Your task to perform on an android device: change notification settings in the gmail app Image 0: 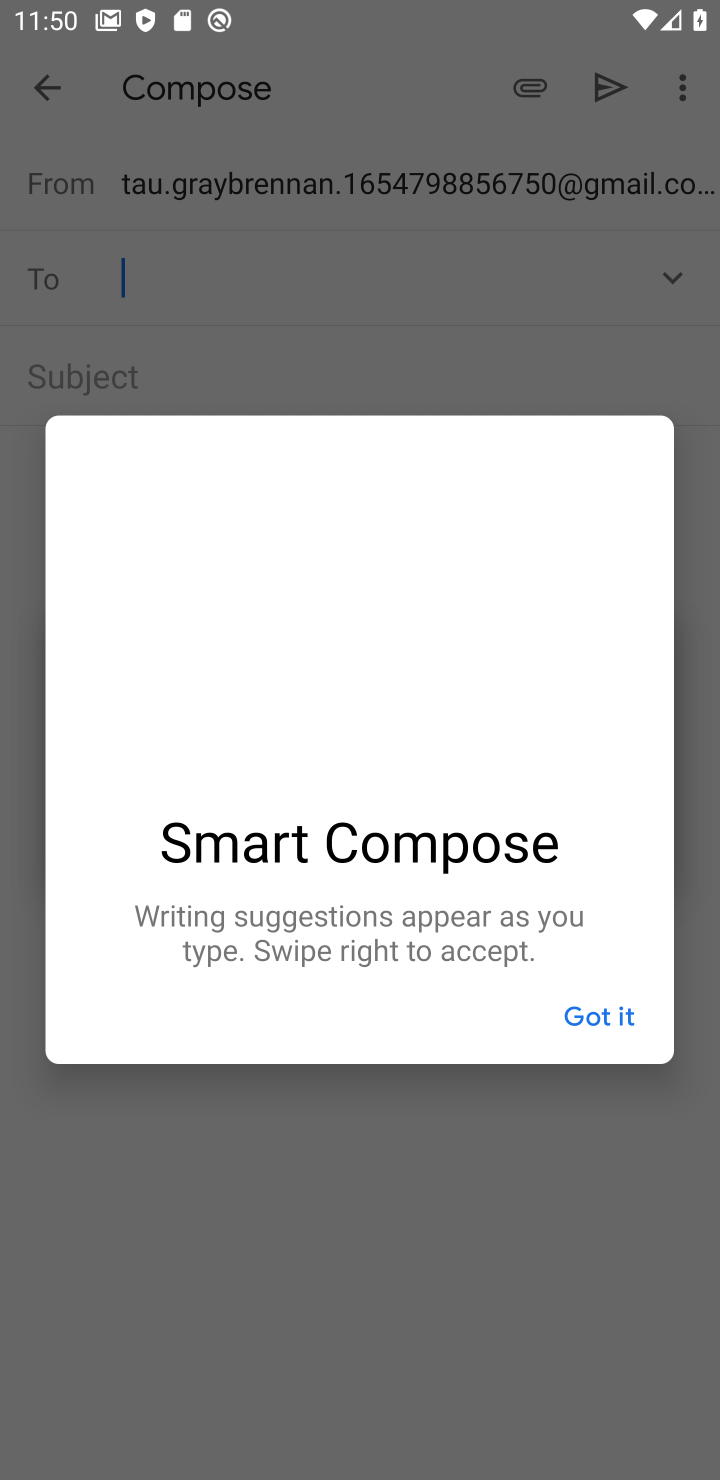
Step 0: press home button
Your task to perform on an android device: change notification settings in the gmail app Image 1: 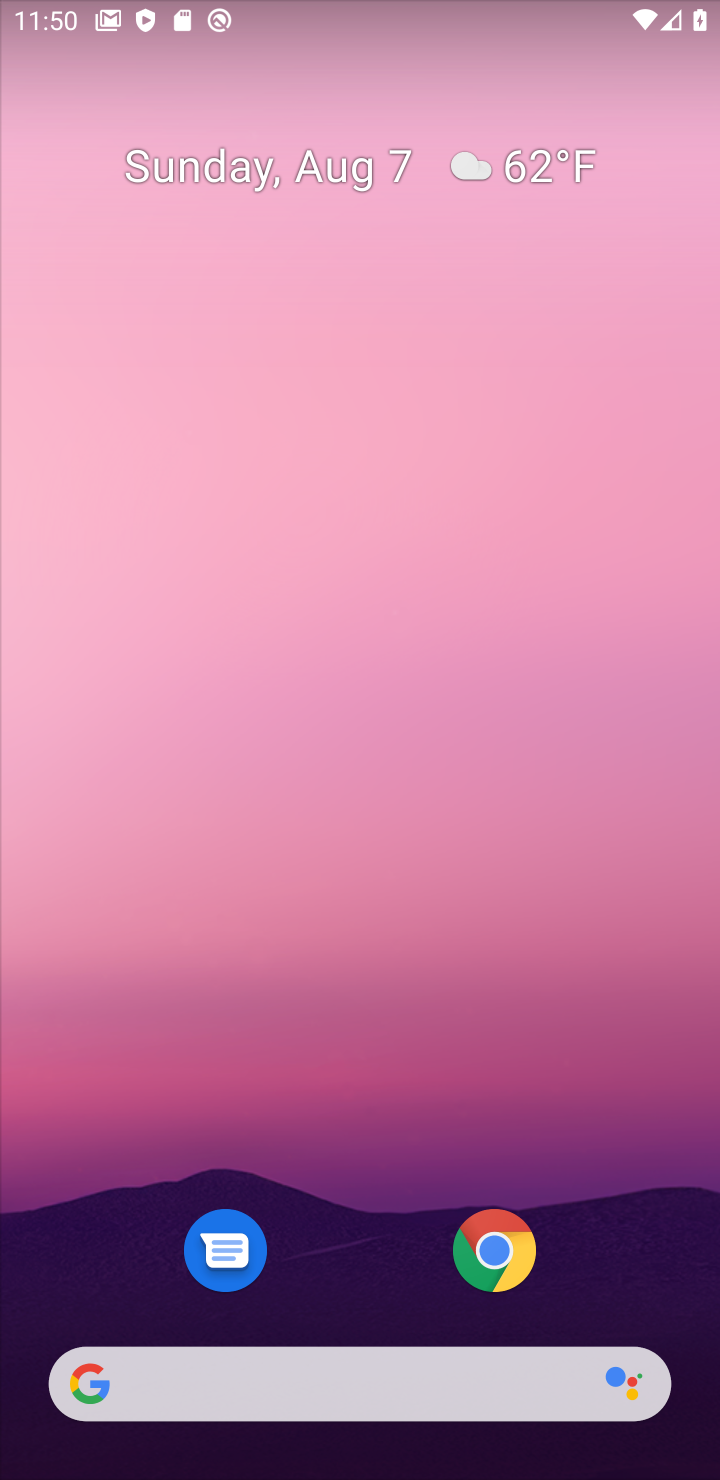
Step 1: drag from (376, 1030) to (404, 232)
Your task to perform on an android device: change notification settings in the gmail app Image 2: 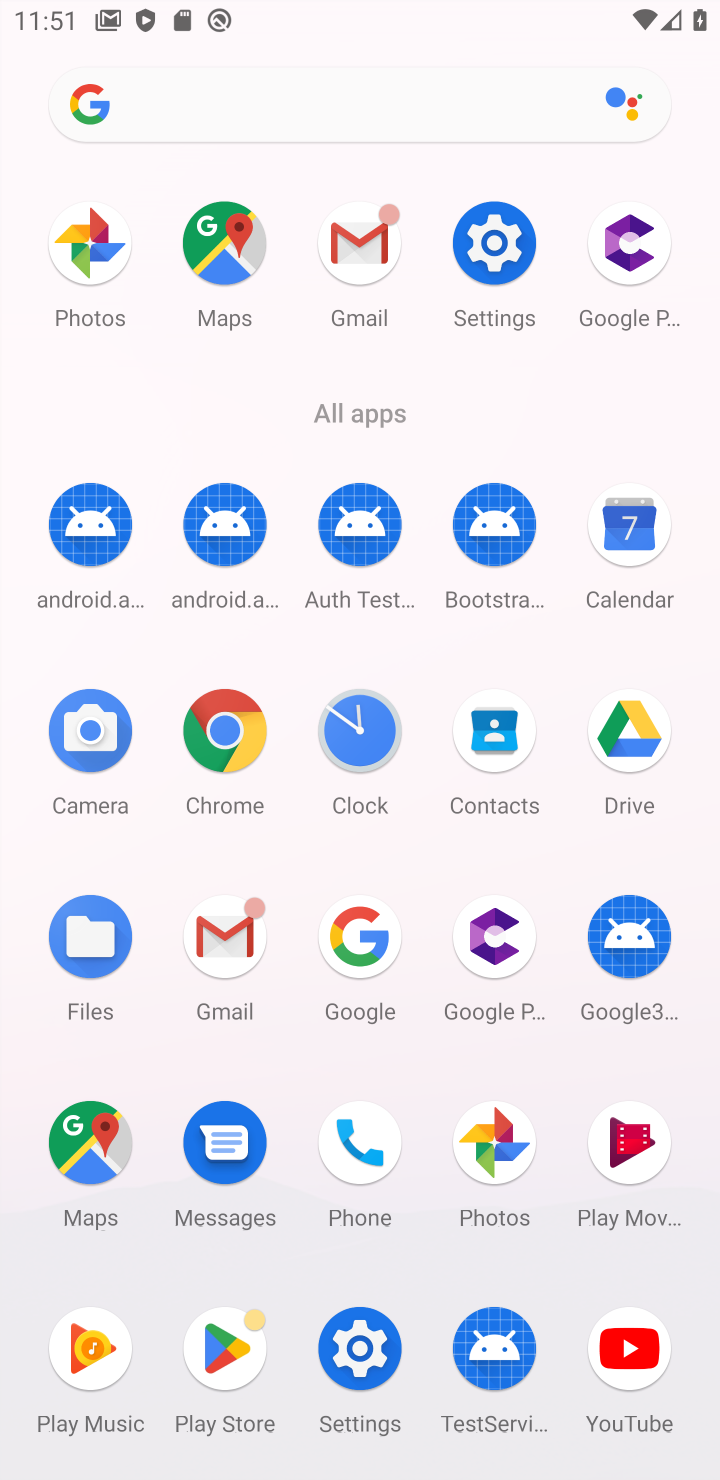
Step 2: click (241, 959)
Your task to perform on an android device: change notification settings in the gmail app Image 3: 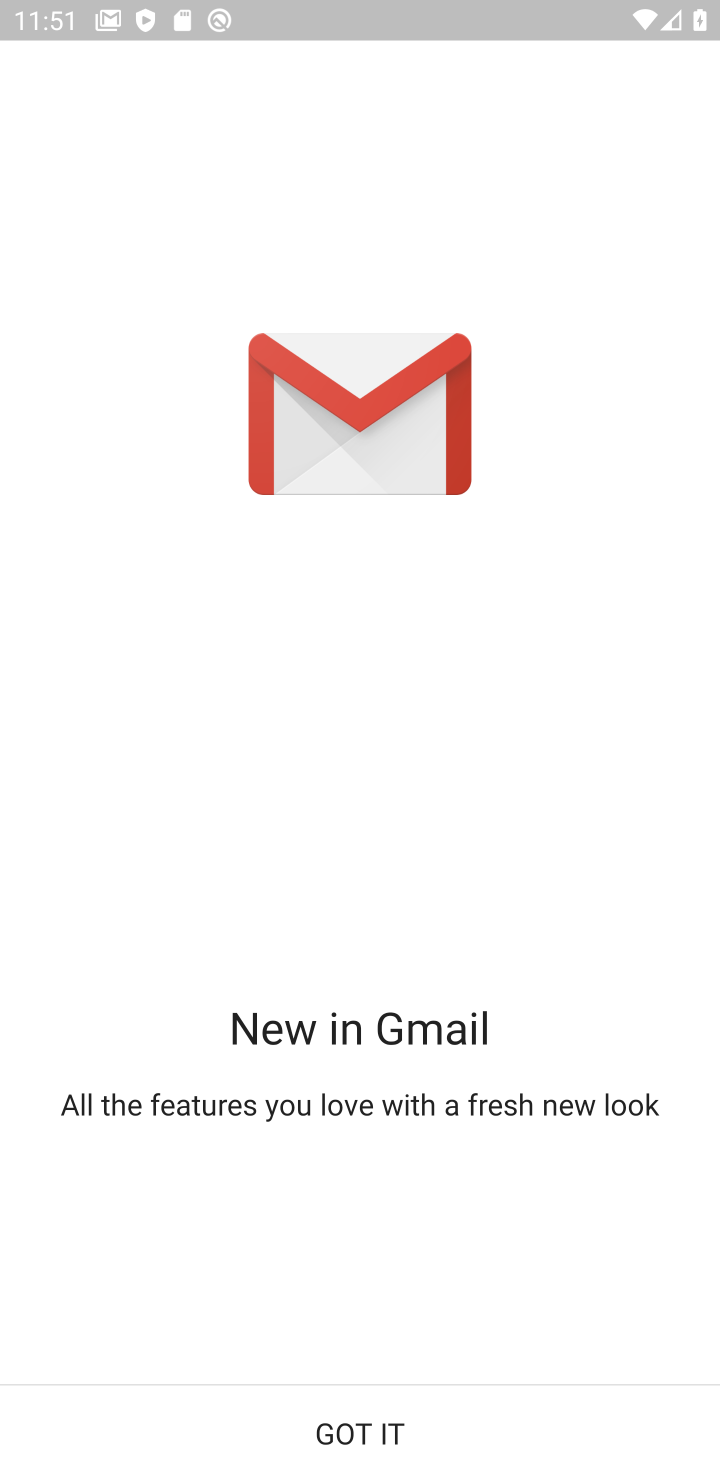
Step 3: click (358, 1441)
Your task to perform on an android device: change notification settings in the gmail app Image 4: 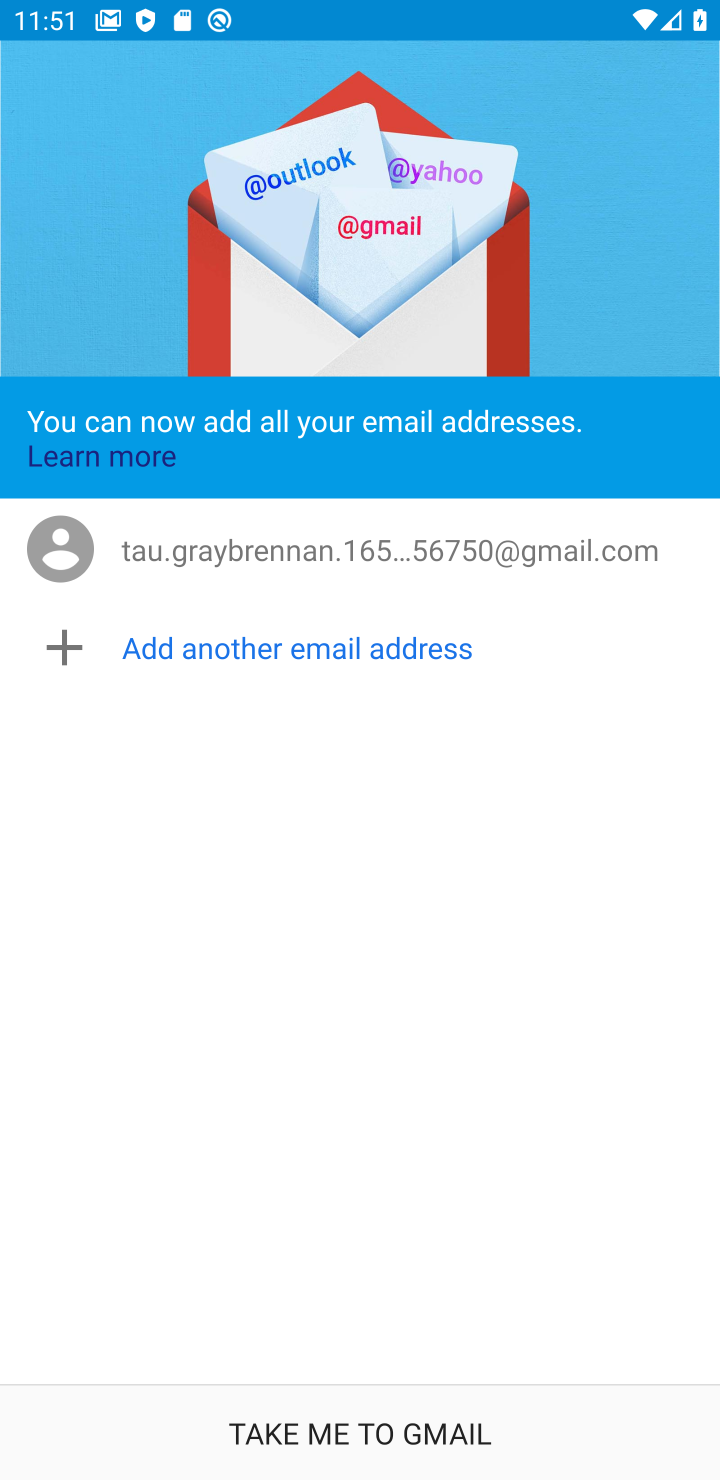
Step 4: click (367, 1434)
Your task to perform on an android device: change notification settings in the gmail app Image 5: 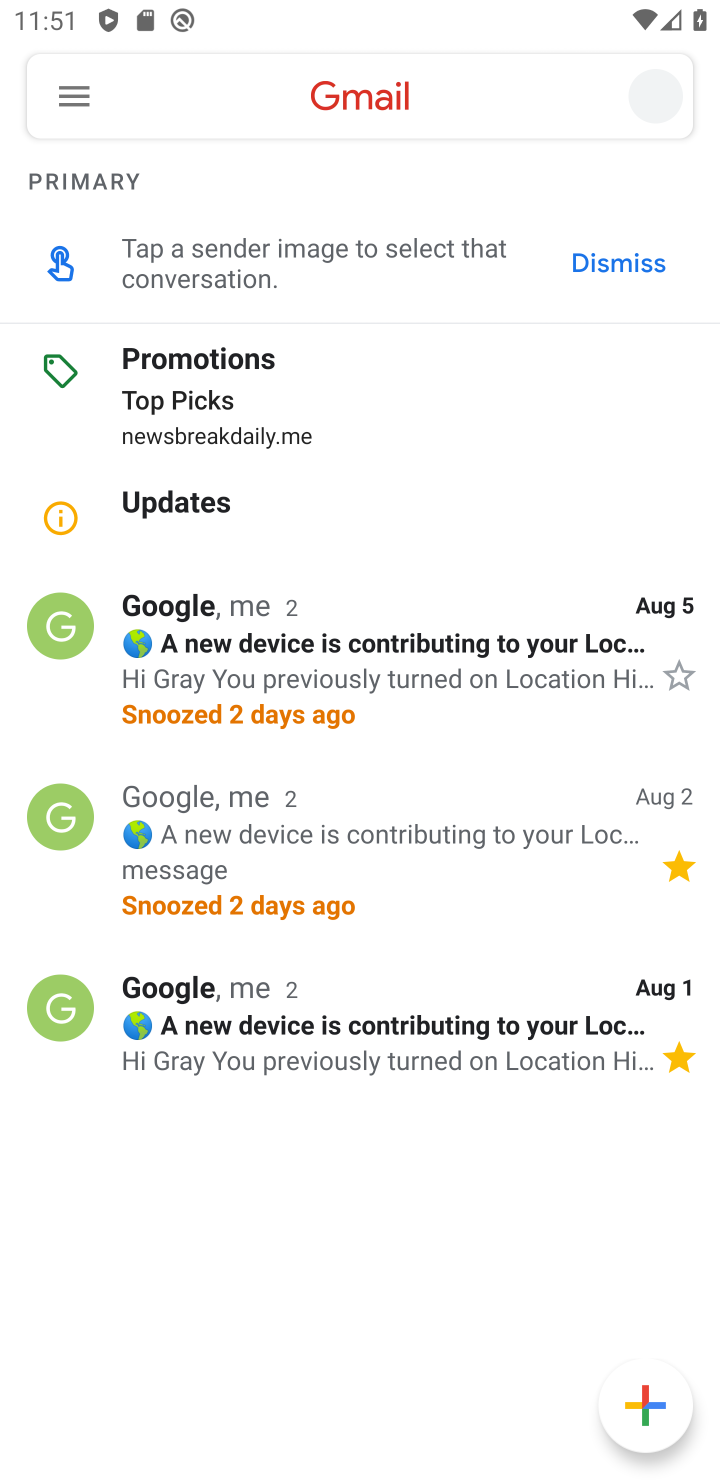
Step 5: task complete